Your task to perform on an android device: Add usb-c to the cart on amazon, then select checkout. Image 0: 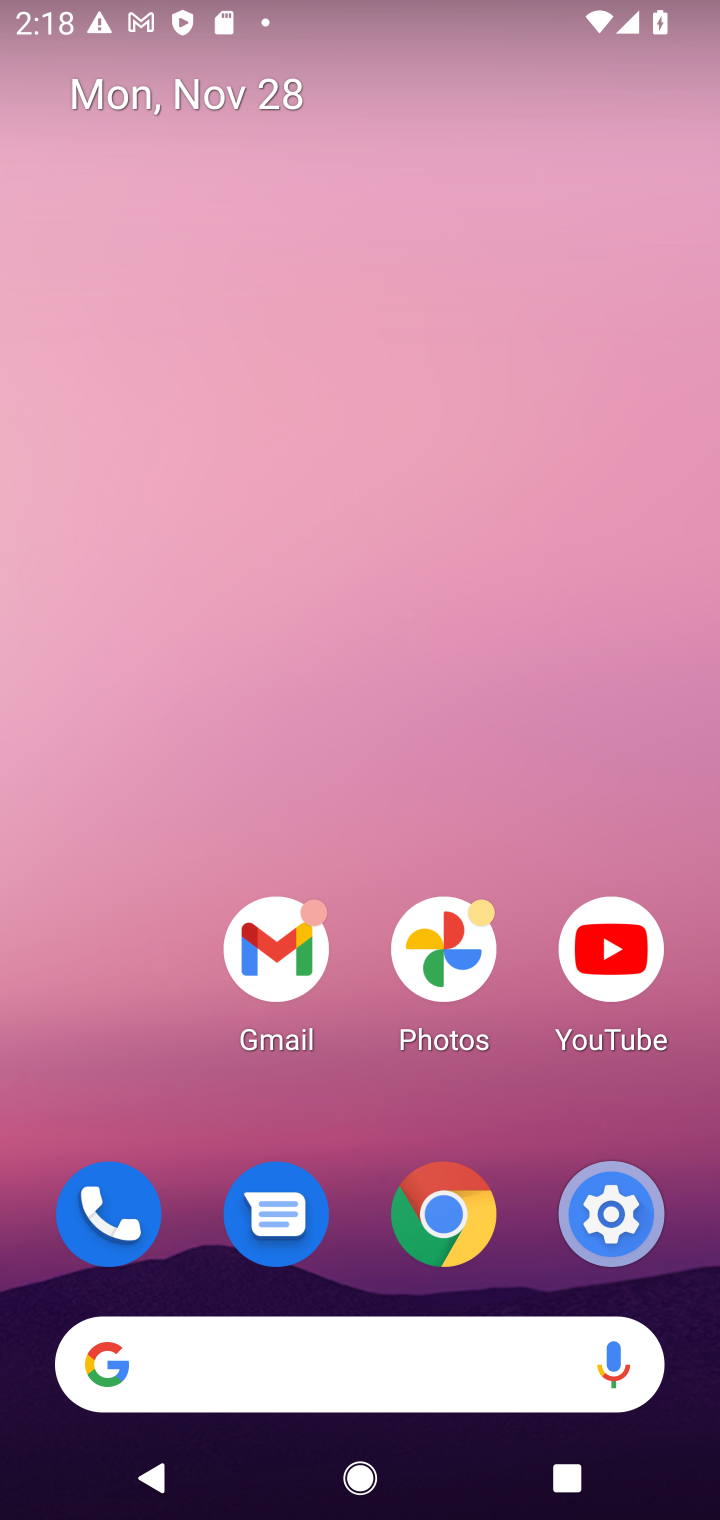
Step 0: click (340, 1366)
Your task to perform on an android device: Add usb-c to the cart on amazon, then select checkout. Image 1: 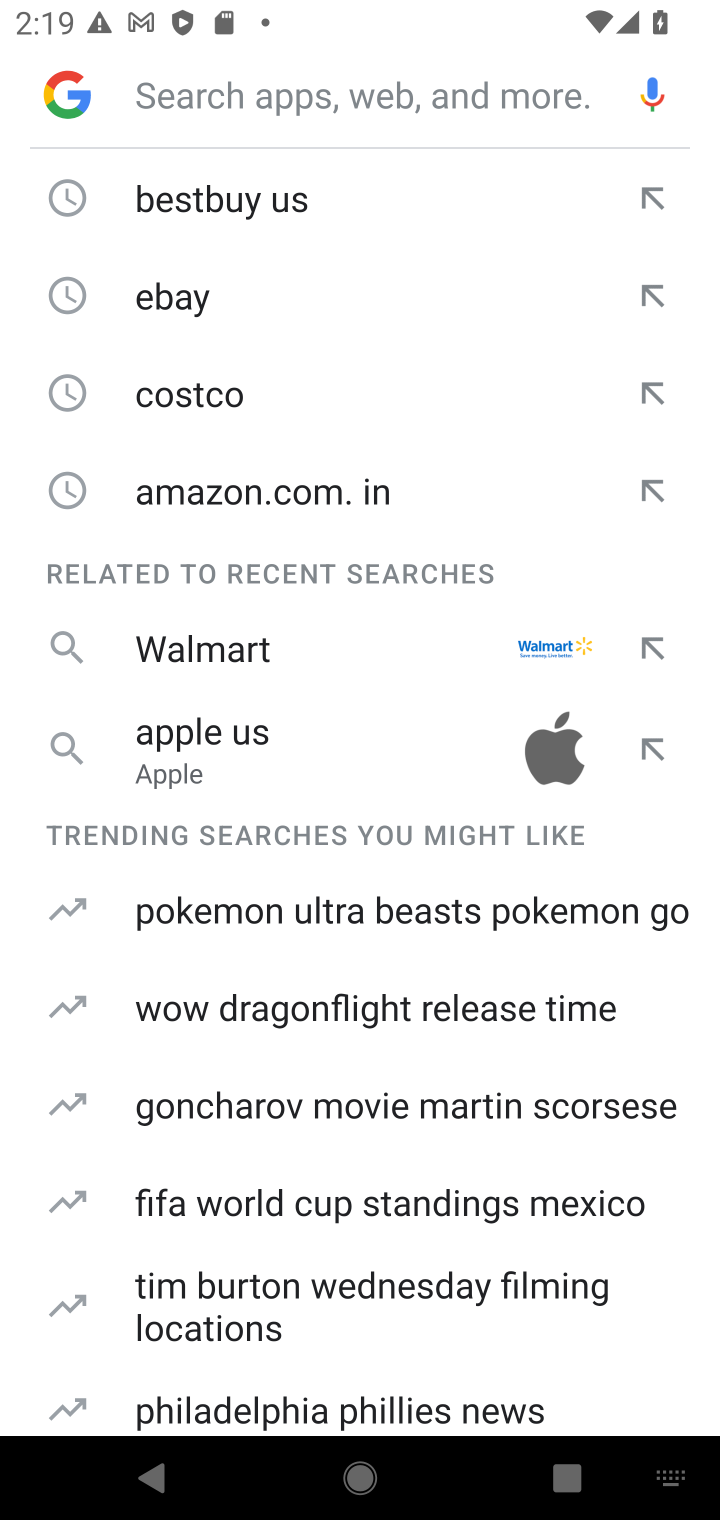
Step 1: type "amazon"
Your task to perform on an android device: Add usb-c to the cart on amazon, then select checkout. Image 2: 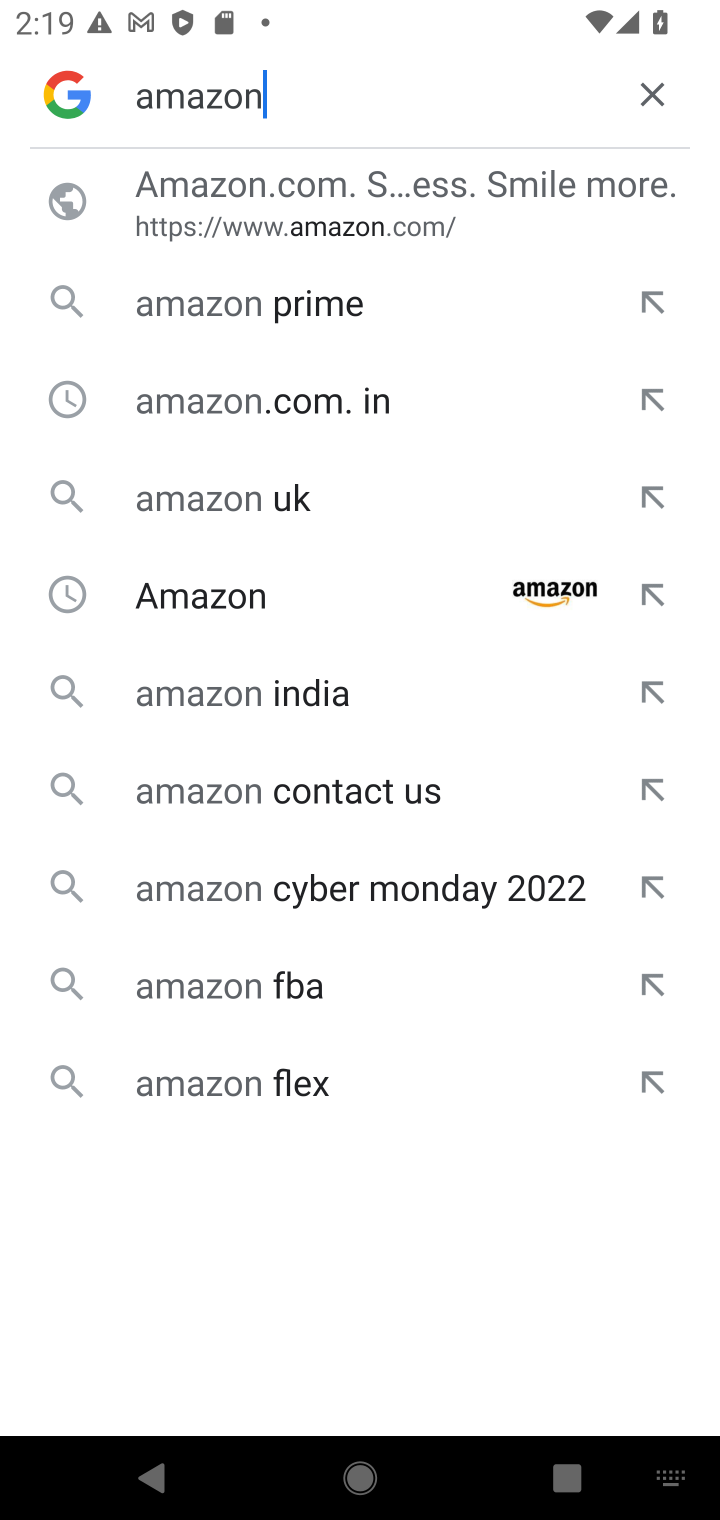
Step 2: click (182, 243)
Your task to perform on an android device: Add usb-c to the cart on amazon, then select checkout. Image 3: 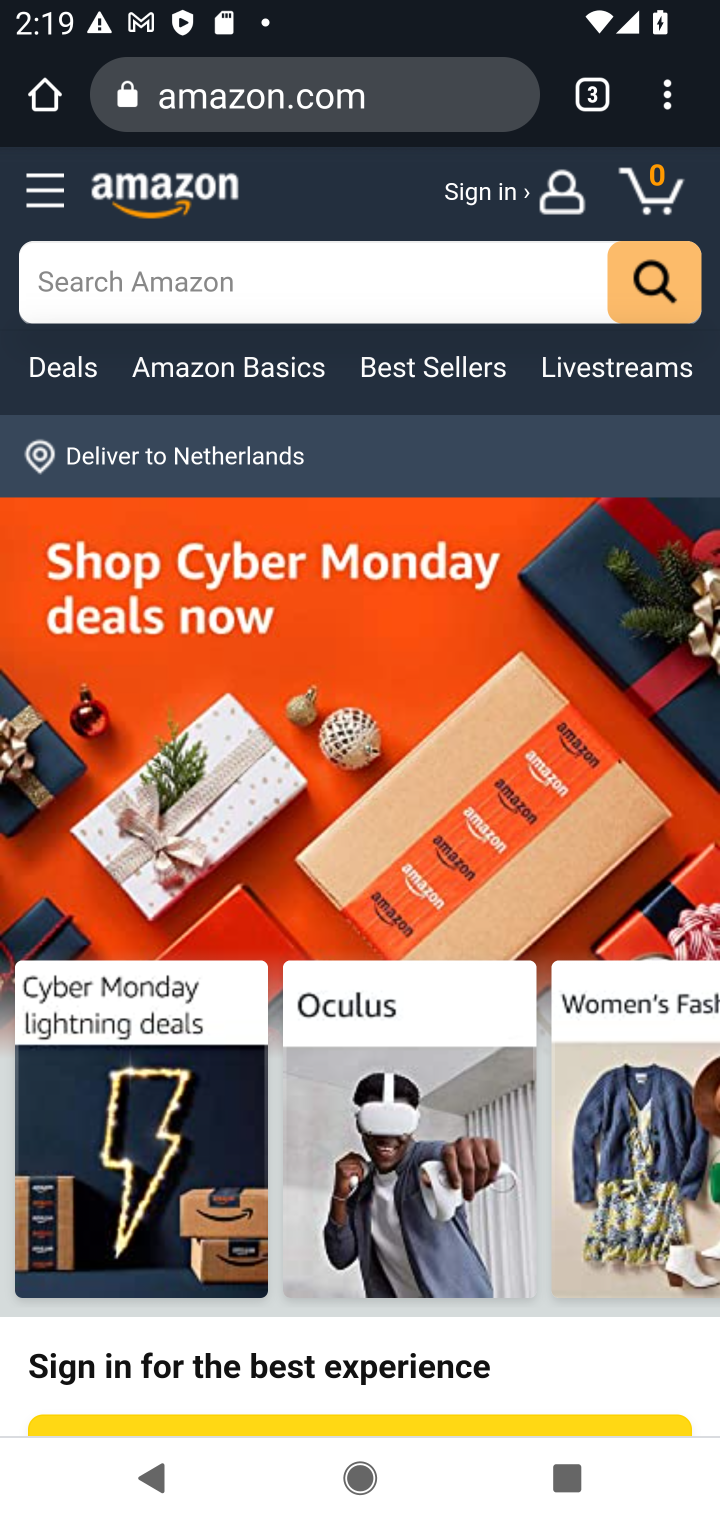
Step 3: click (347, 299)
Your task to perform on an android device: Add usb-c to the cart on amazon, then select checkout. Image 4: 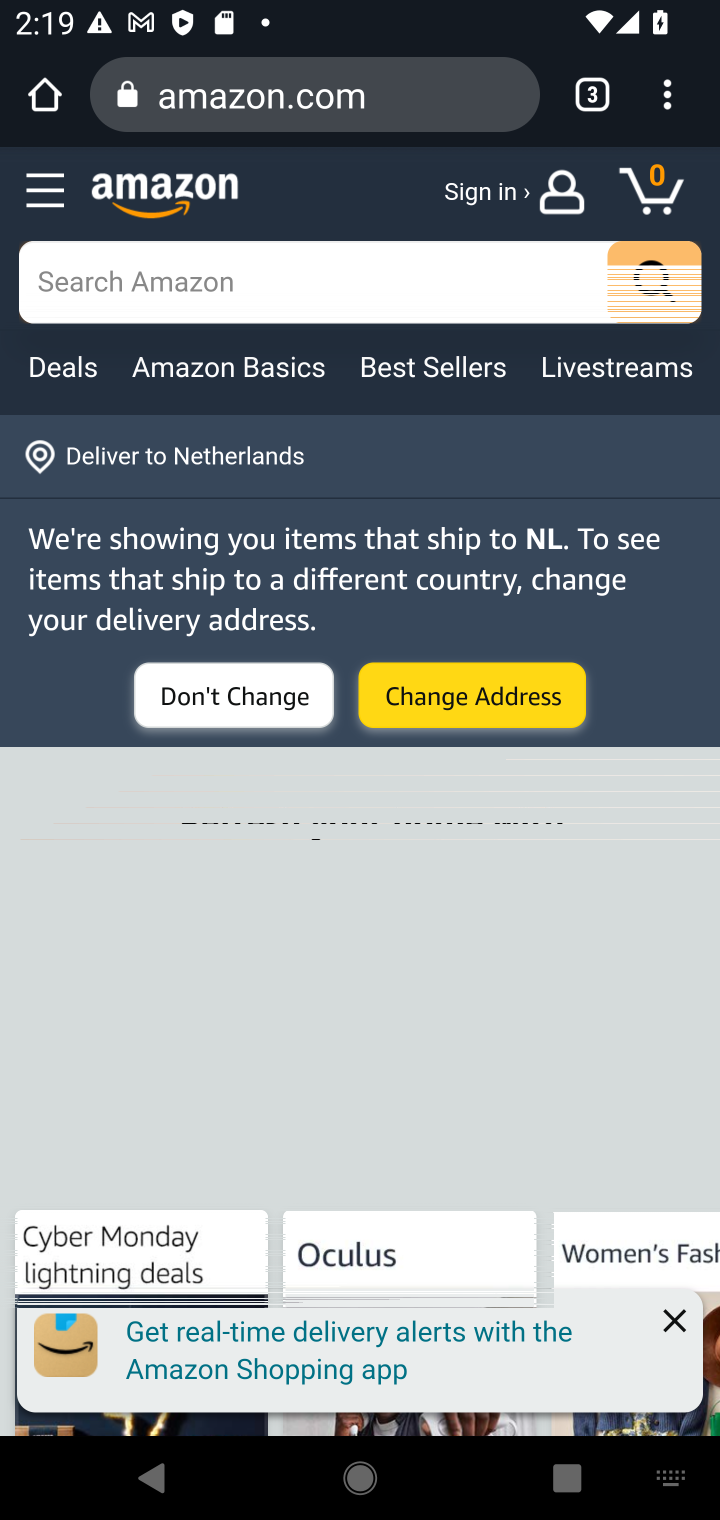
Step 4: type "usb-c"
Your task to perform on an android device: Add usb-c to the cart on amazon, then select checkout. Image 5: 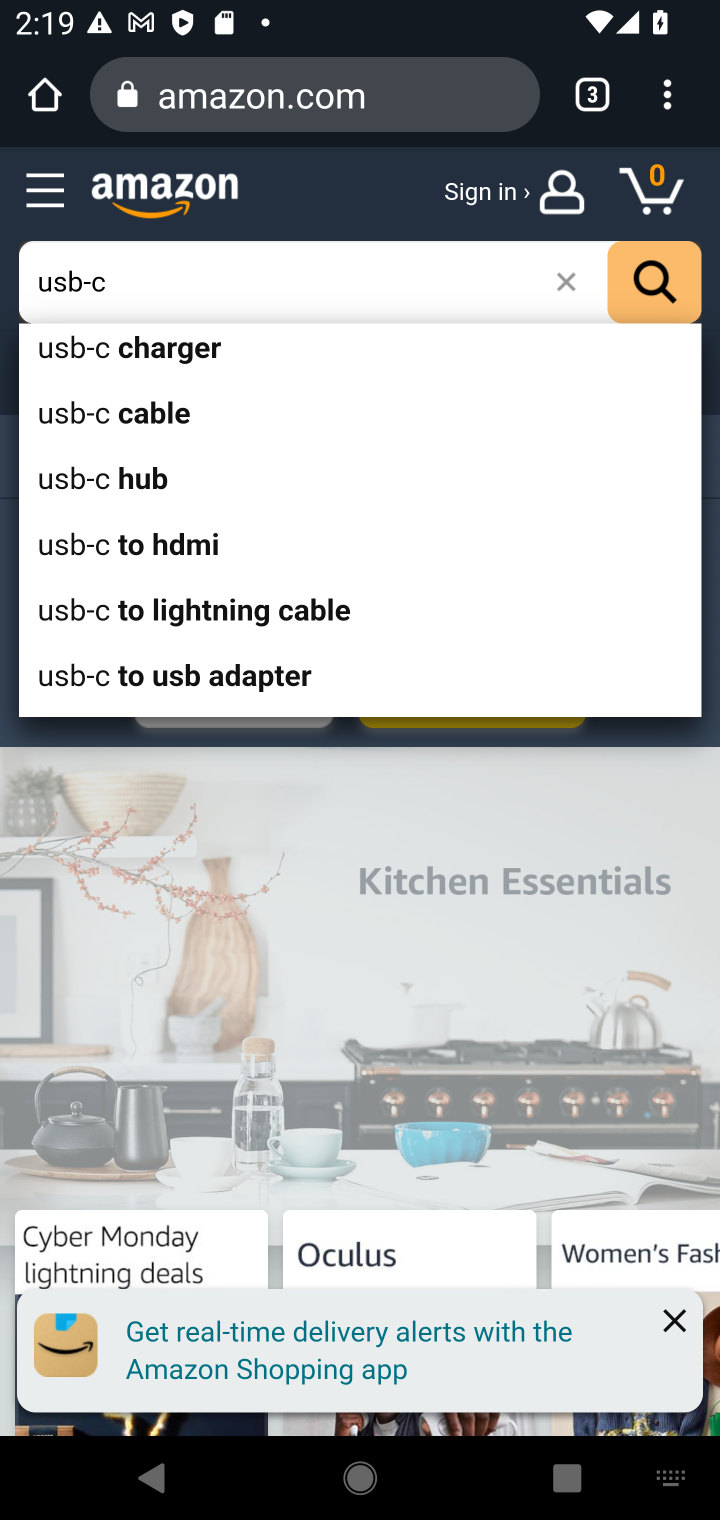
Step 5: click (146, 404)
Your task to perform on an android device: Add usb-c to the cart on amazon, then select checkout. Image 6: 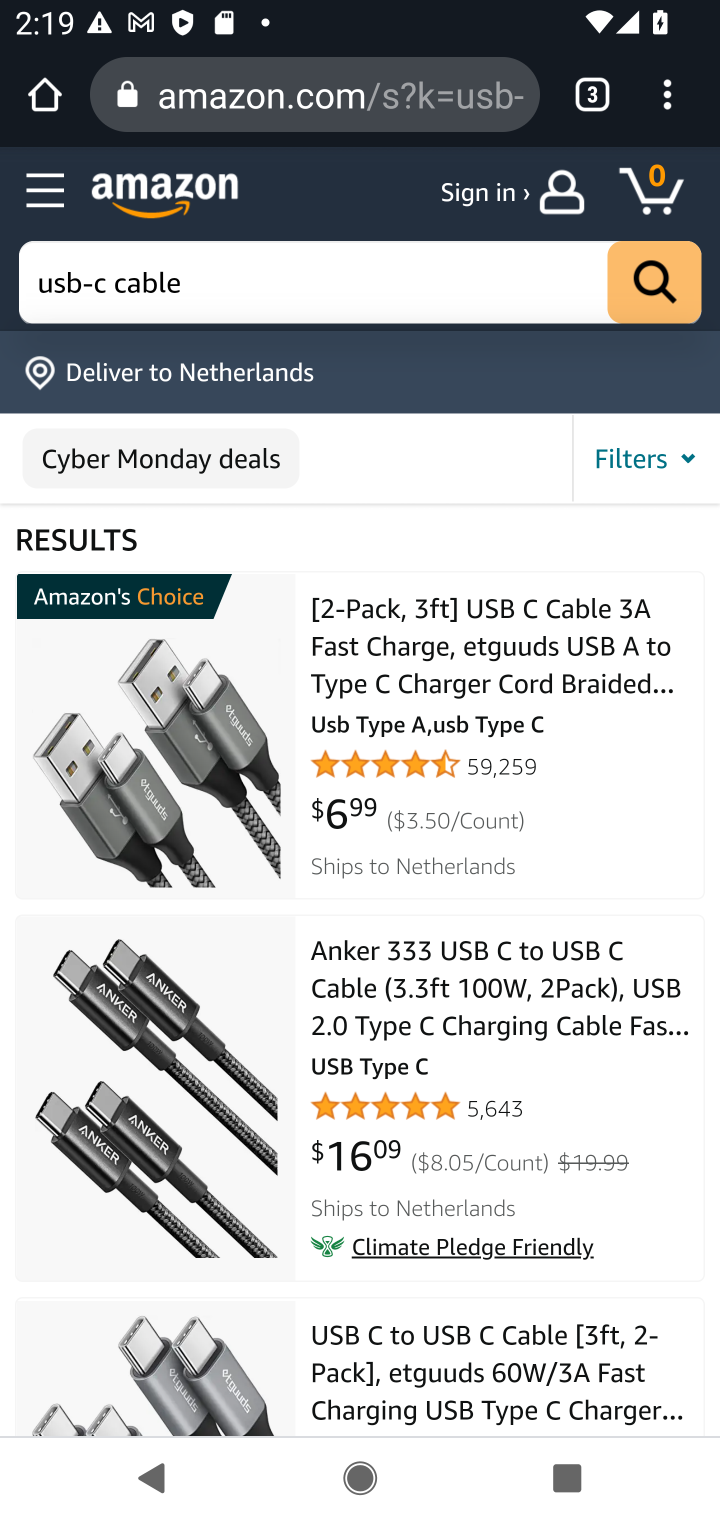
Step 6: click (252, 640)
Your task to perform on an android device: Add usb-c to the cart on amazon, then select checkout. Image 7: 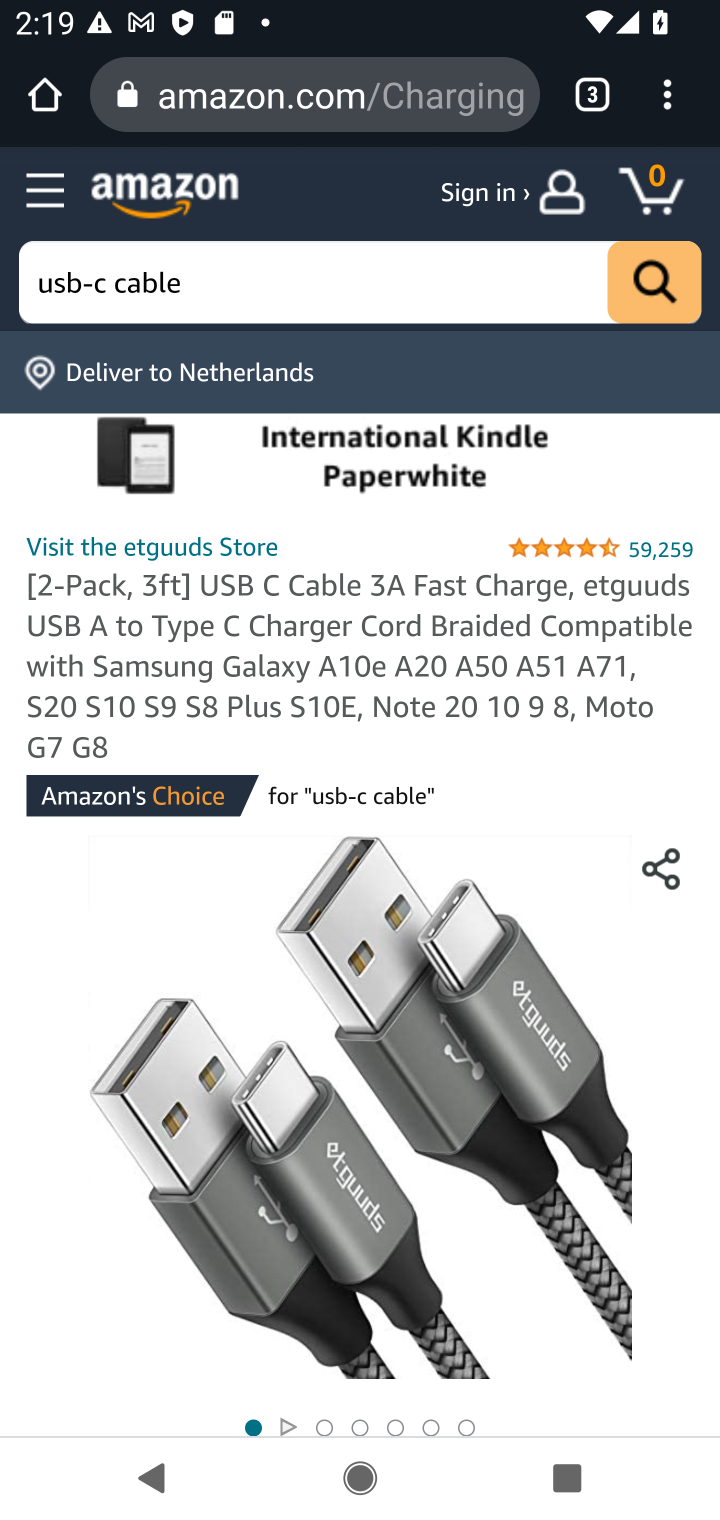
Step 7: task complete